Your task to perform on an android device: open chrome privacy settings Image 0: 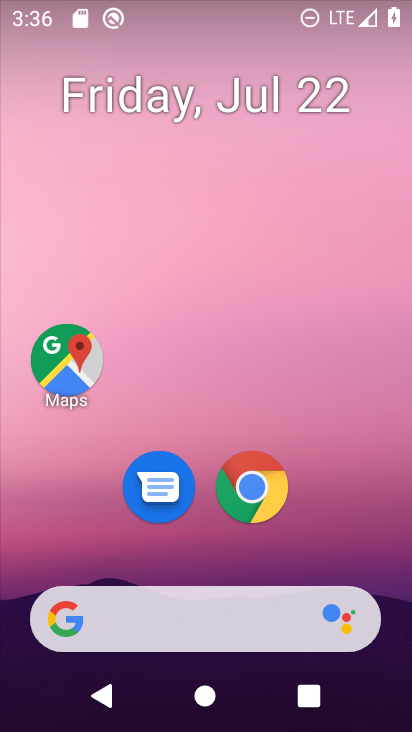
Step 0: click (256, 479)
Your task to perform on an android device: open chrome privacy settings Image 1: 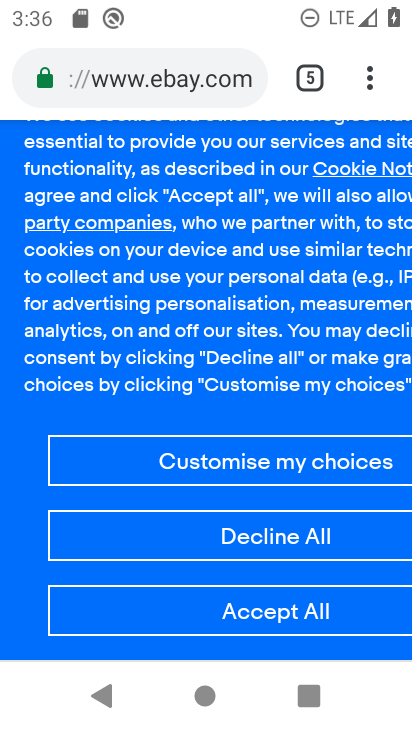
Step 1: drag from (367, 82) to (131, 547)
Your task to perform on an android device: open chrome privacy settings Image 2: 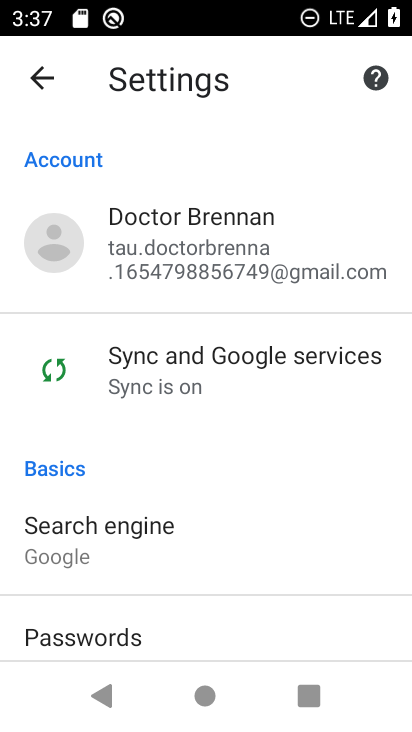
Step 2: drag from (205, 588) to (325, 25)
Your task to perform on an android device: open chrome privacy settings Image 3: 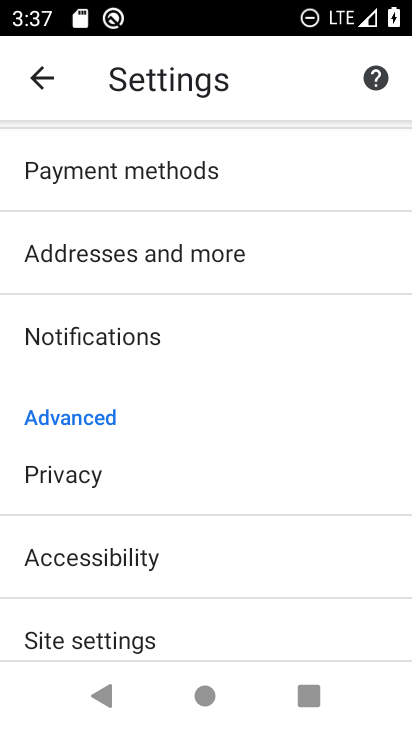
Step 3: drag from (158, 568) to (184, 400)
Your task to perform on an android device: open chrome privacy settings Image 4: 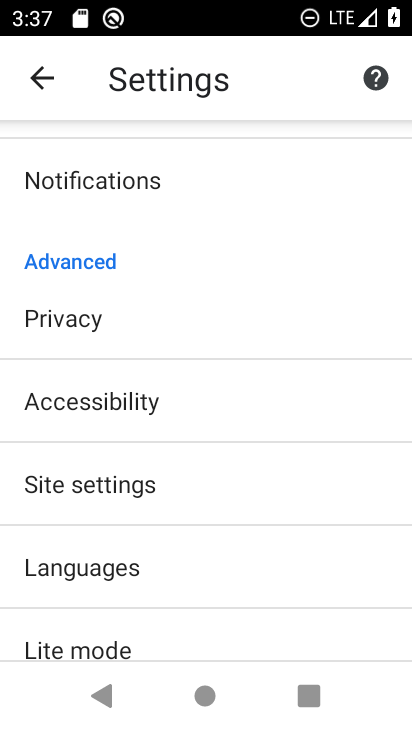
Step 4: click (62, 316)
Your task to perform on an android device: open chrome privacy settings Image 5: 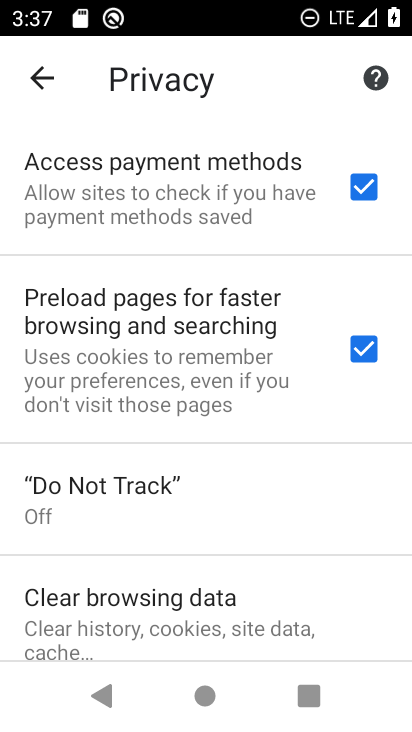
Step 5: task complete